Your task to perform on an android device: Show me the alarms in the clock app Image 0: 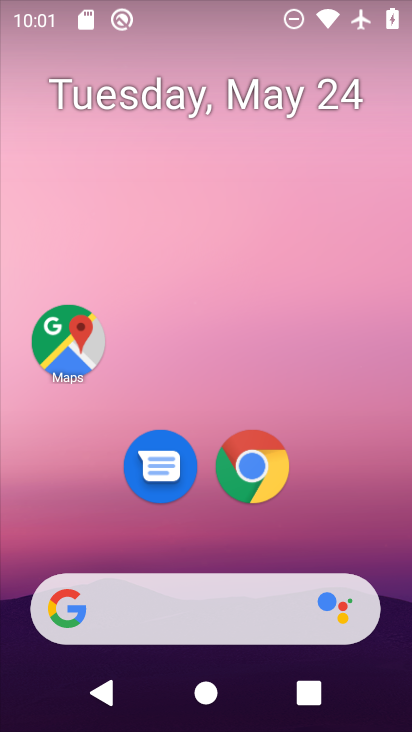
Step 0: drag from (189, 570) to (203, 14)
Your task to perform on an android device: Show me the alarms in the clock app Image 1: 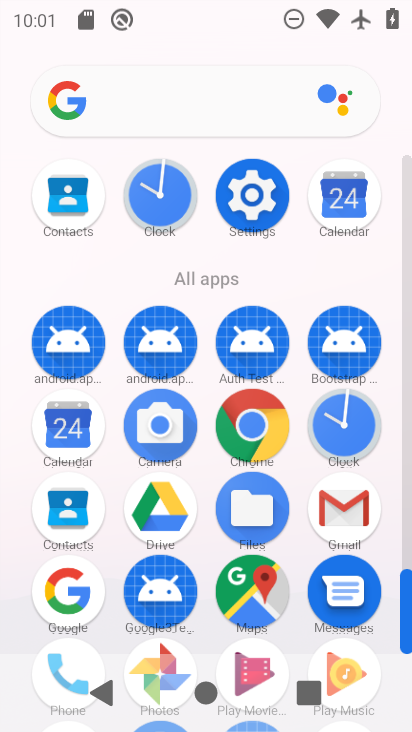
Step 1: click (342, 434)
Your task to perform on an android device: Show me the alarms in the clock app Image 2: 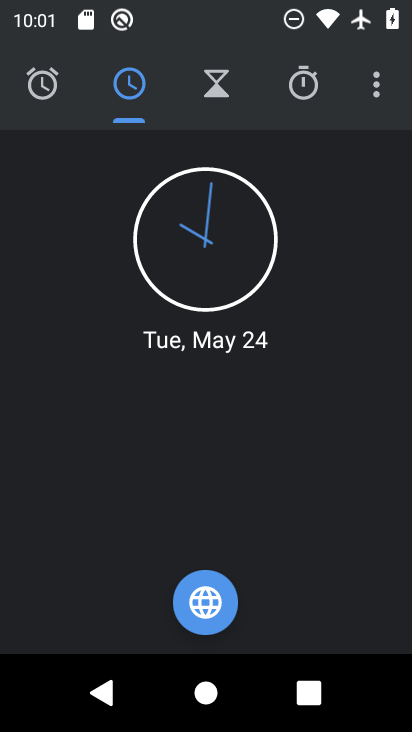
Step 2: click (47, 71)
Your task to perform on an android device: Show me the alarms in the clock app Image 3: 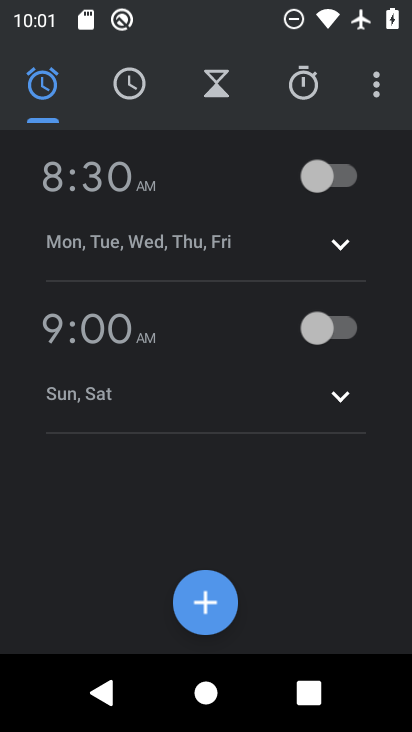
Step 3: task complete